Your task to perform on an android device: What's the price of the Galaxy phone? Image 0: 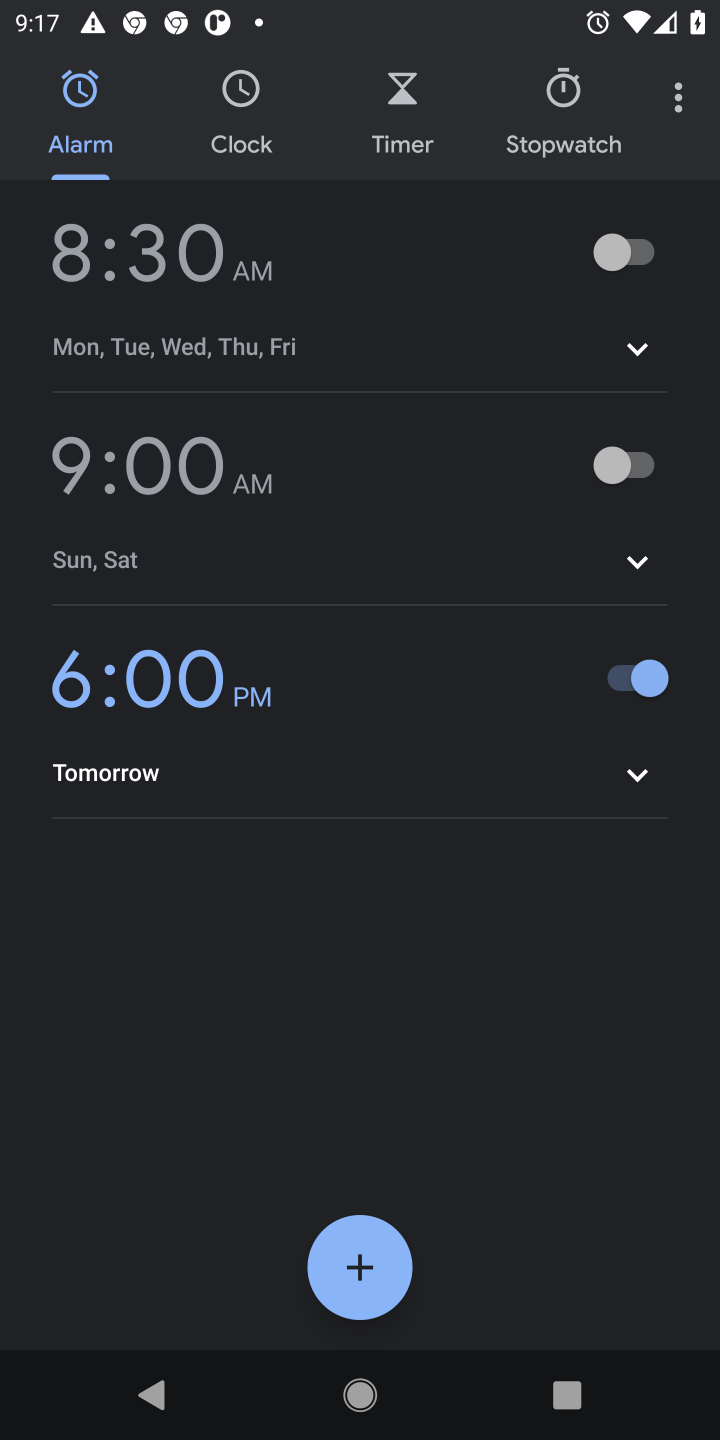
Step 0: press home button
Your task to perform on an android device: What's the price of the Galaxy phone? Image 1: 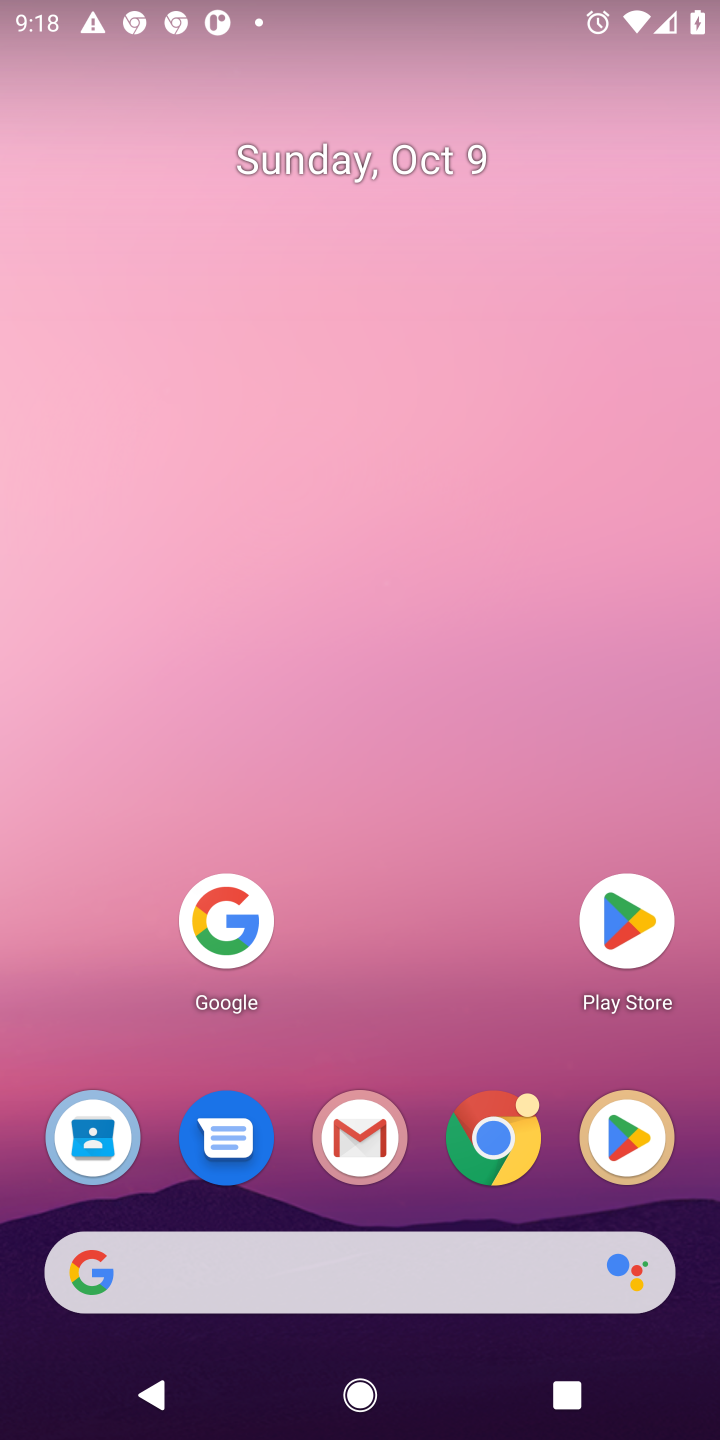
Step 1: click (219, 894)
Your task to perform on an android device: What's the price of the Galaxy phone? Image 2: 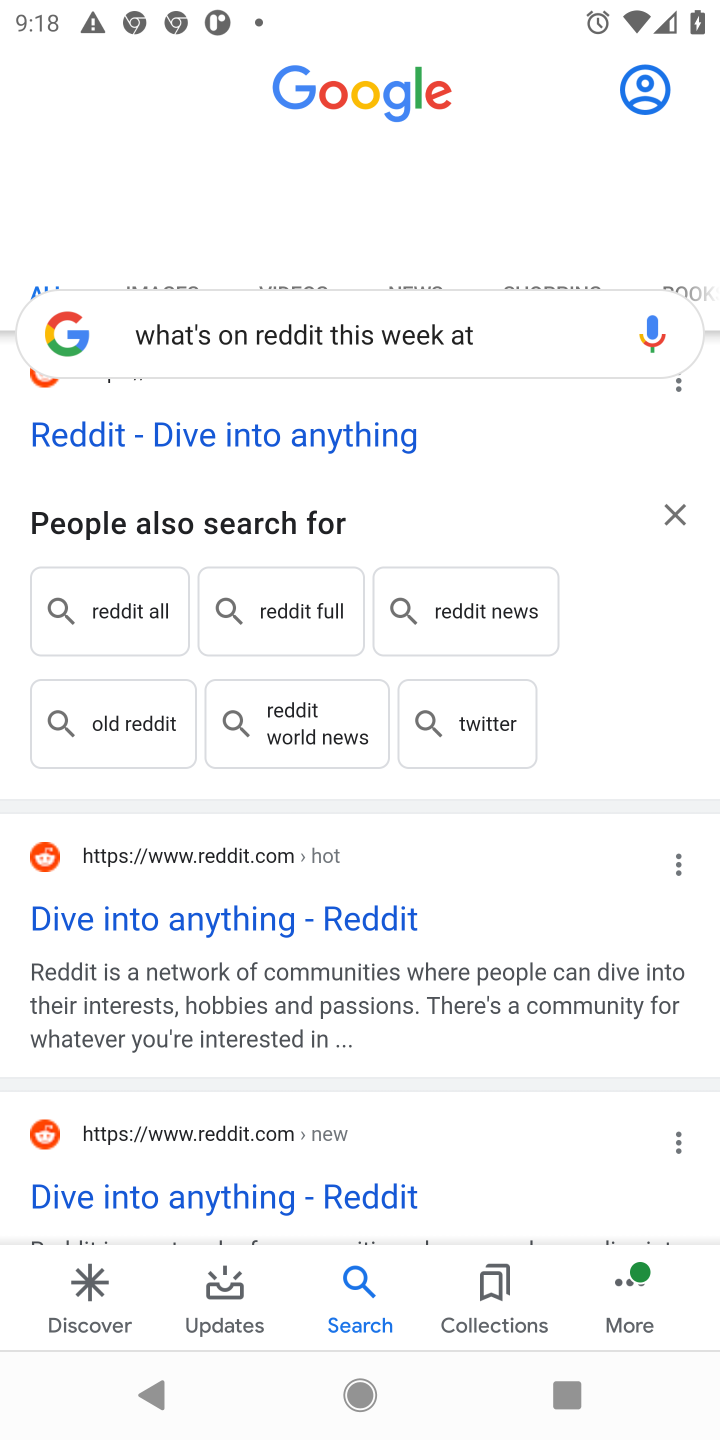
Step 2: click (495, 320)
Your task to perform on an android device: What's the price of the Galaxy phone? Image 3: 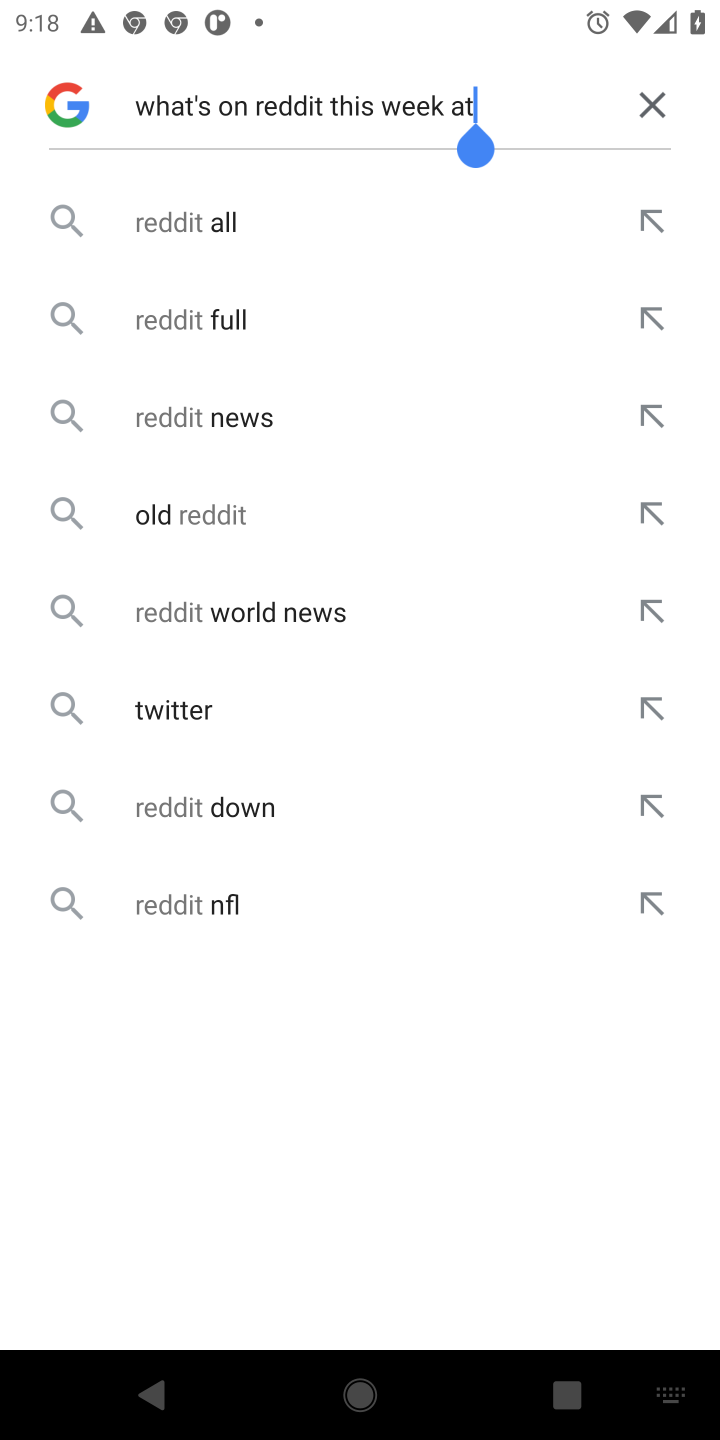
Step 3: click (647, 88)
Your task to perform on an android device: What's the price of the Galaxy phone? Image 4: 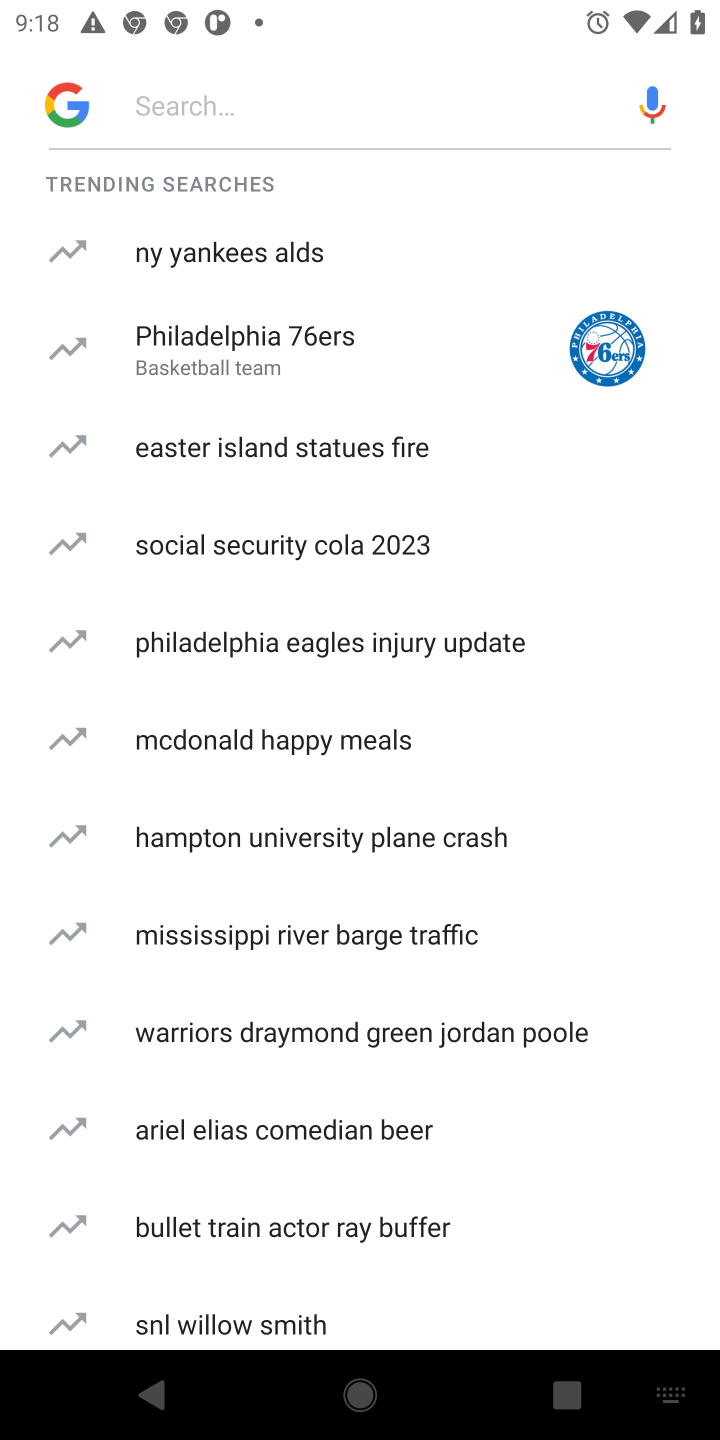
Step 4: click (285, 111)
Your task to perform on an android device: What's the price of the Galaxy phone? Image 5: 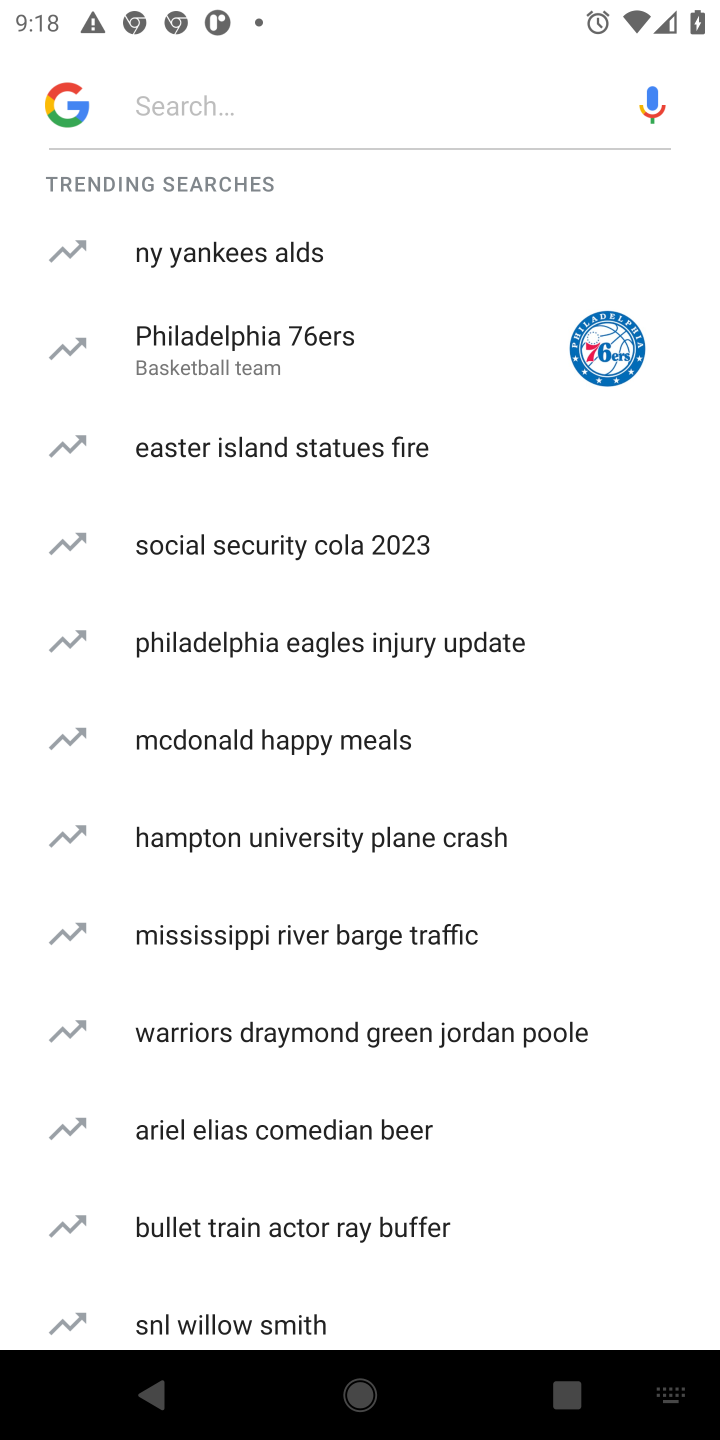
Step 5: type "What's the price of the Galaxy phone? "
Your task to perform on an android device: What's the price of the Galaxy phone? Image 6: 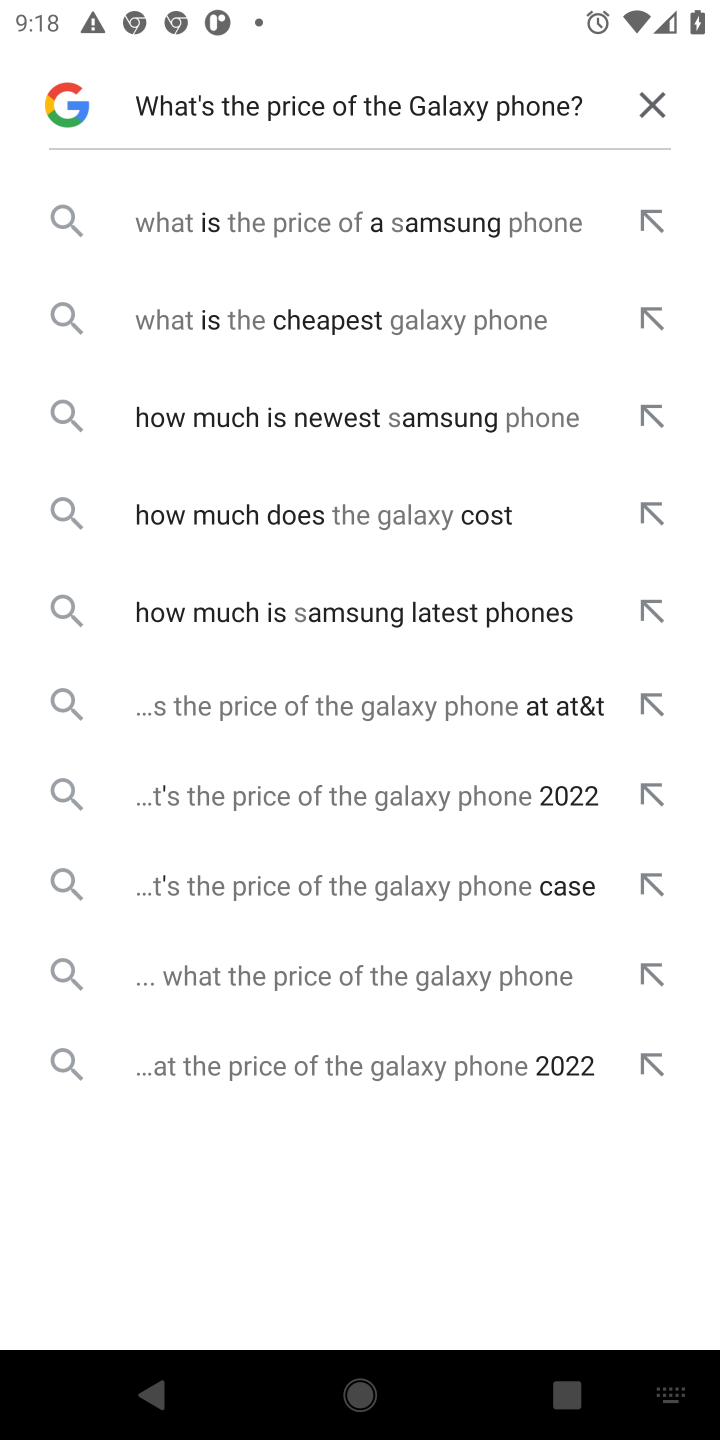
Step 6: click (323, 536)
Your task to perform on an android device: What's the price of the Galaxy phone? Image 7: 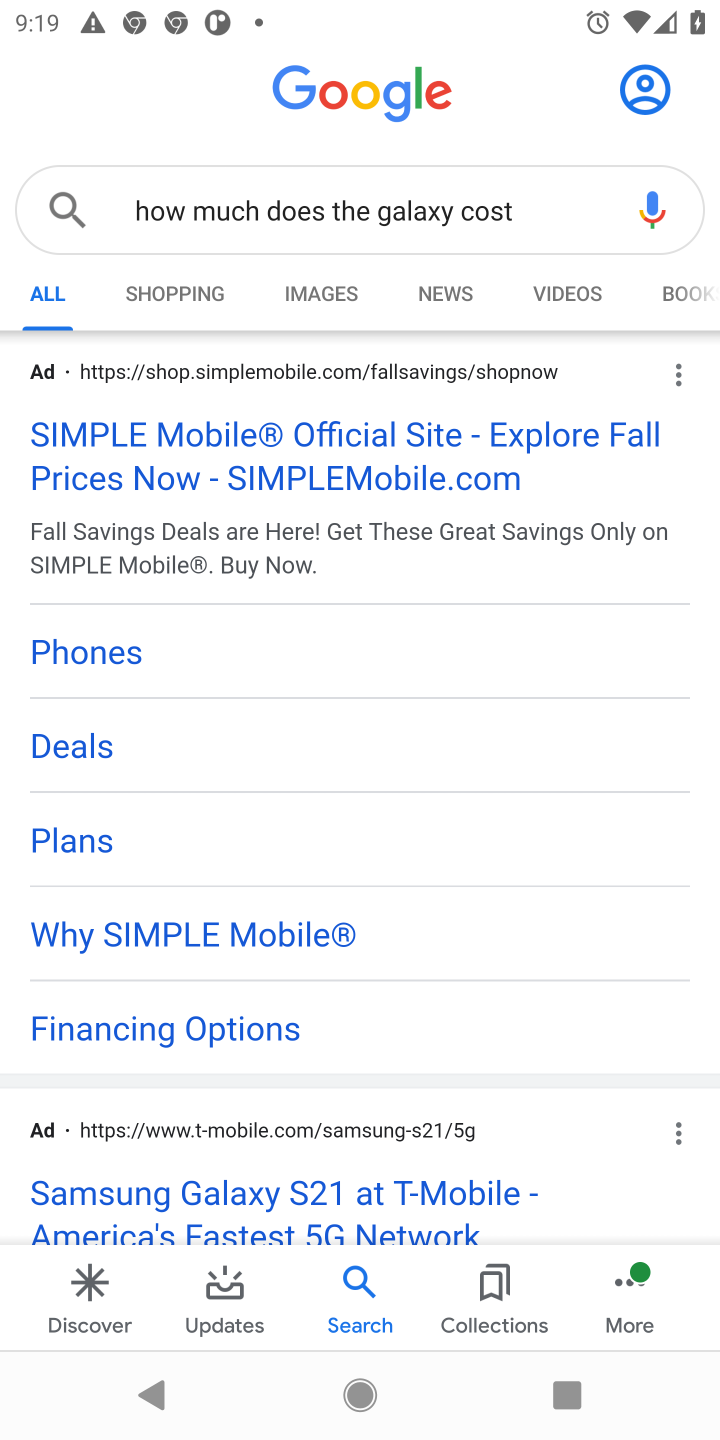
Step 7: click (180, 656)
Your task to perform on an android device: What's the price of the Galaxy phone? Image 8: 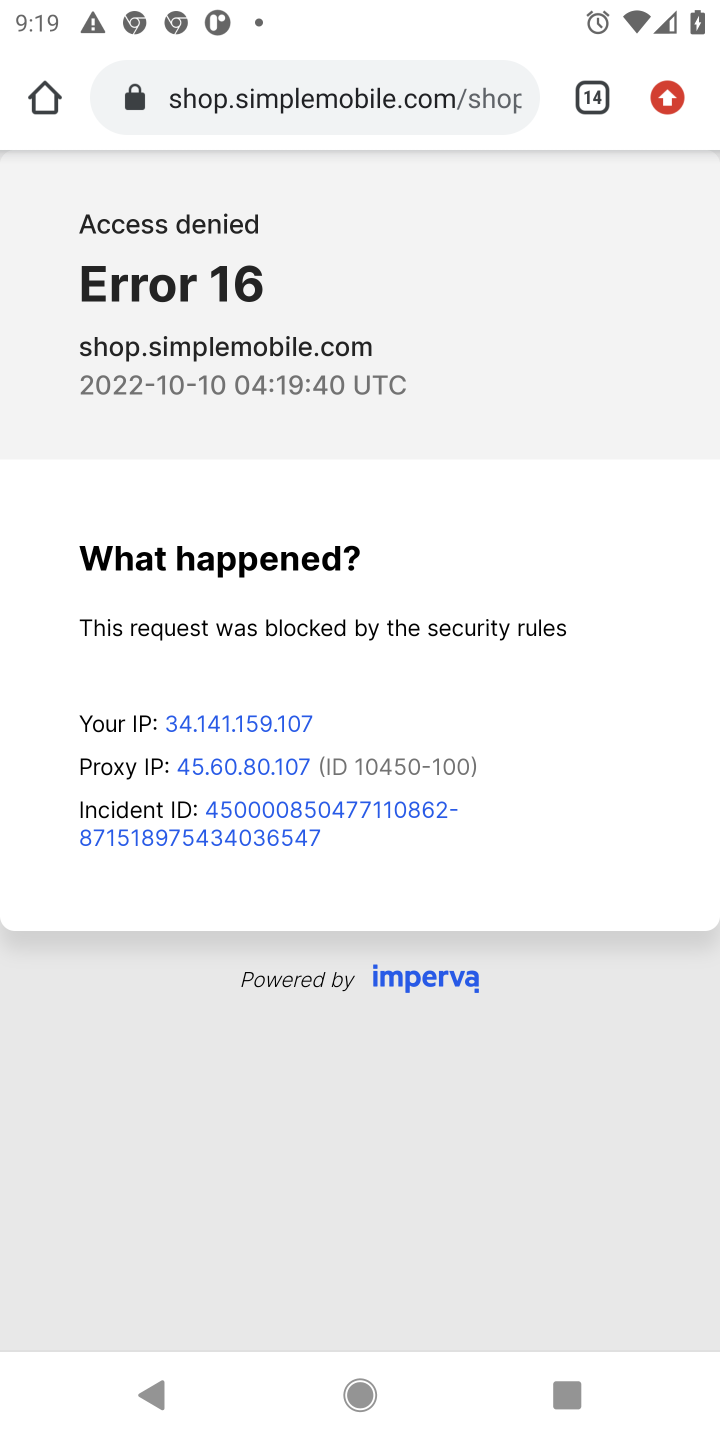
Step 8: press back button
Your task to perform on an android device: What's the price of the Galaxy phone? Image 9: 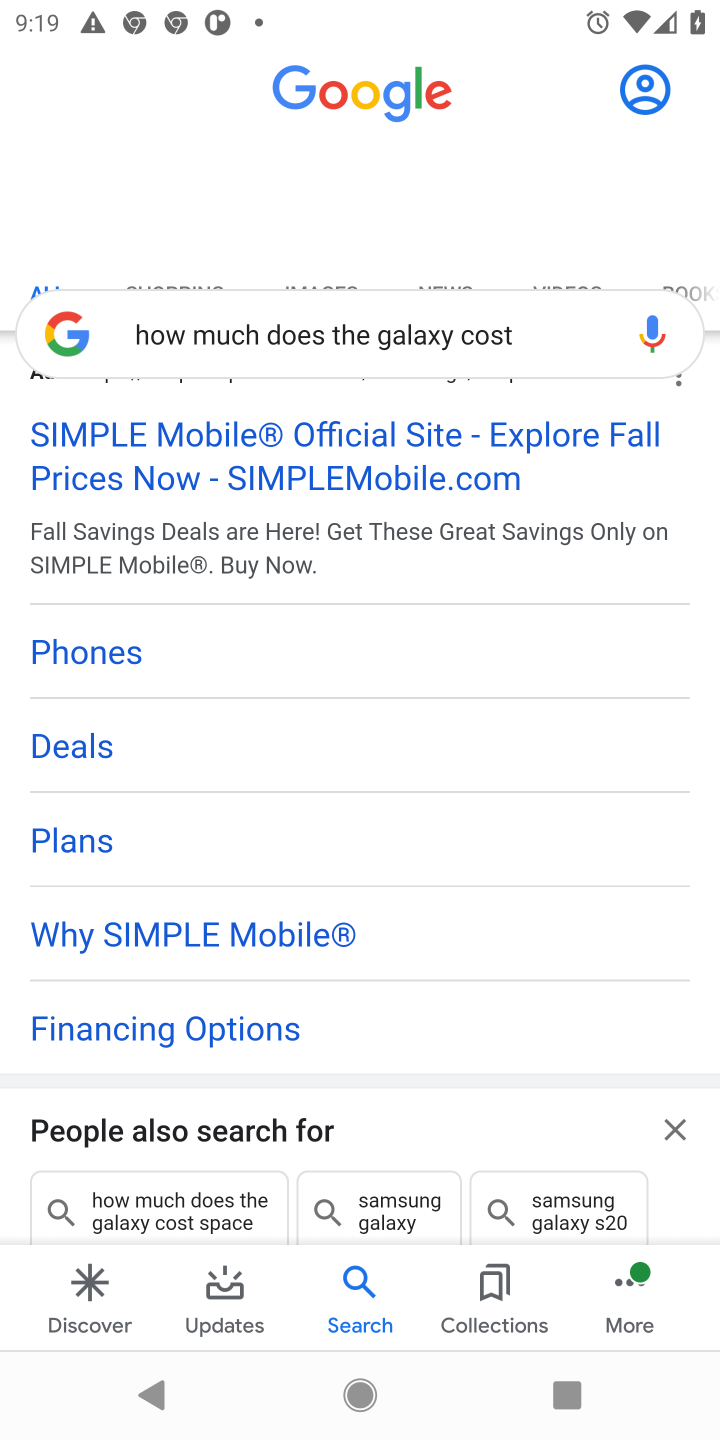
Step 9: click (296, 1124)
Your task to perform on an android device: What's the price of the Galaxy phone? Image 10: 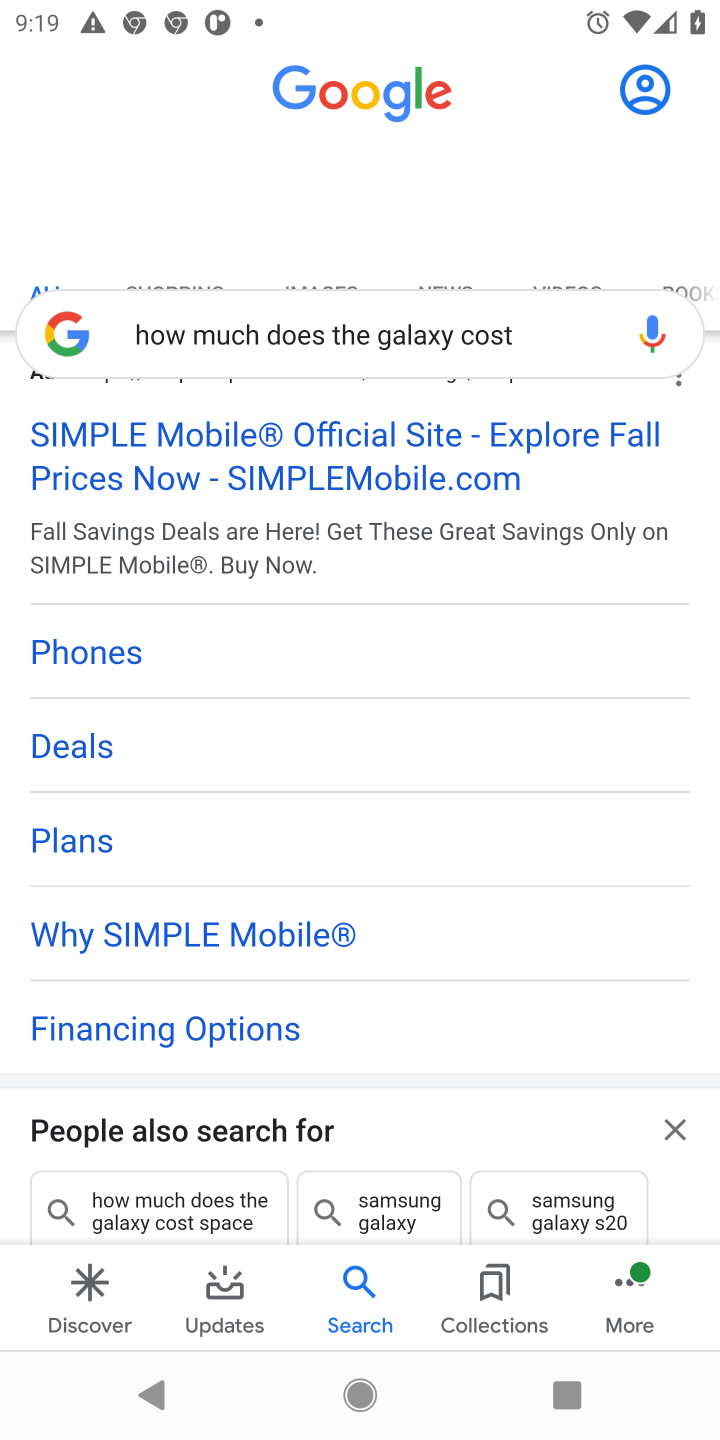
Step 10: click (174, 442)
Your task to perform on an android device: What's the price of the Galaxy phone? Image 11: 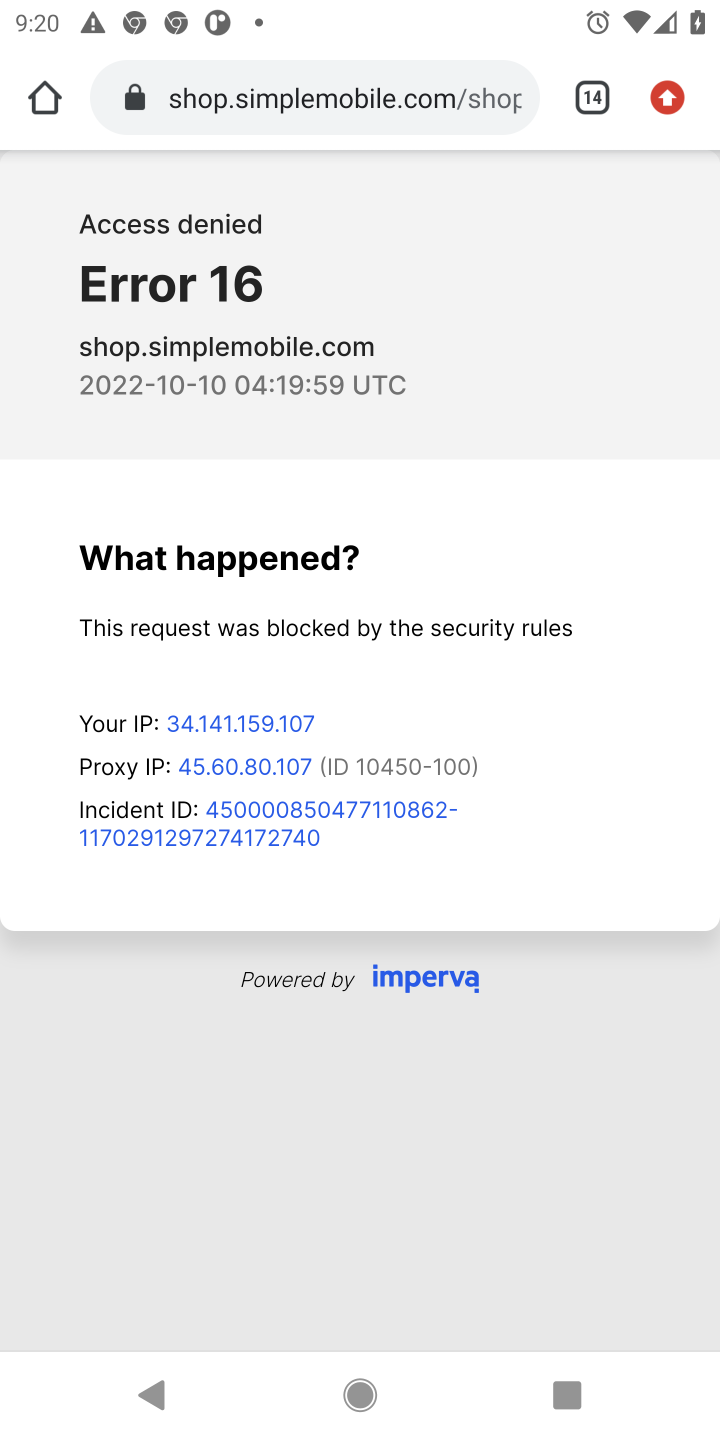
Step 11: press back button
Your task to perform on an android device: What's the price of the Galaxy phone? Image 12: 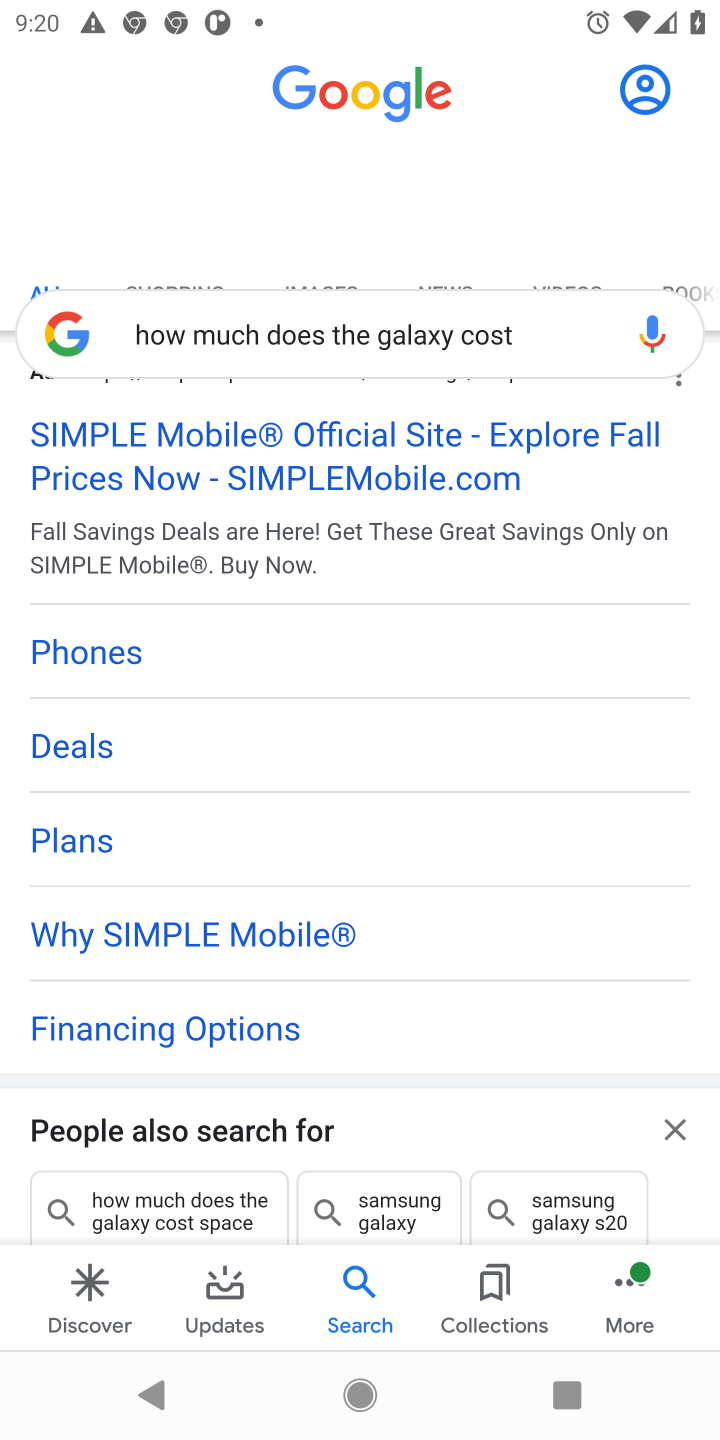
Step 12: drag from (190, 1118) to (262, 423)
Your task to perform on an android device: What's the price of the Galaxy phone? Image 13: 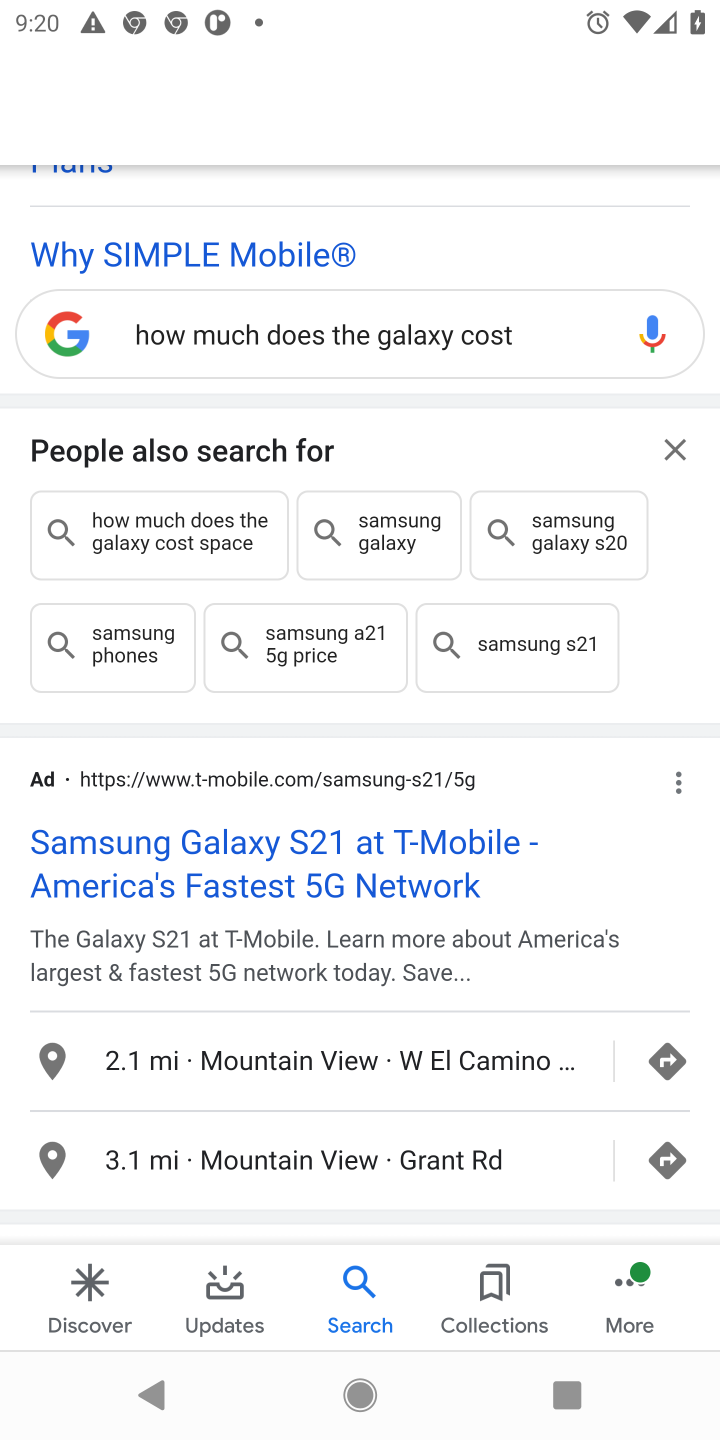
Step 13: click (235, 878)
Your task to perform on an android device: What's the price of the Galaxy phone? Image 14: 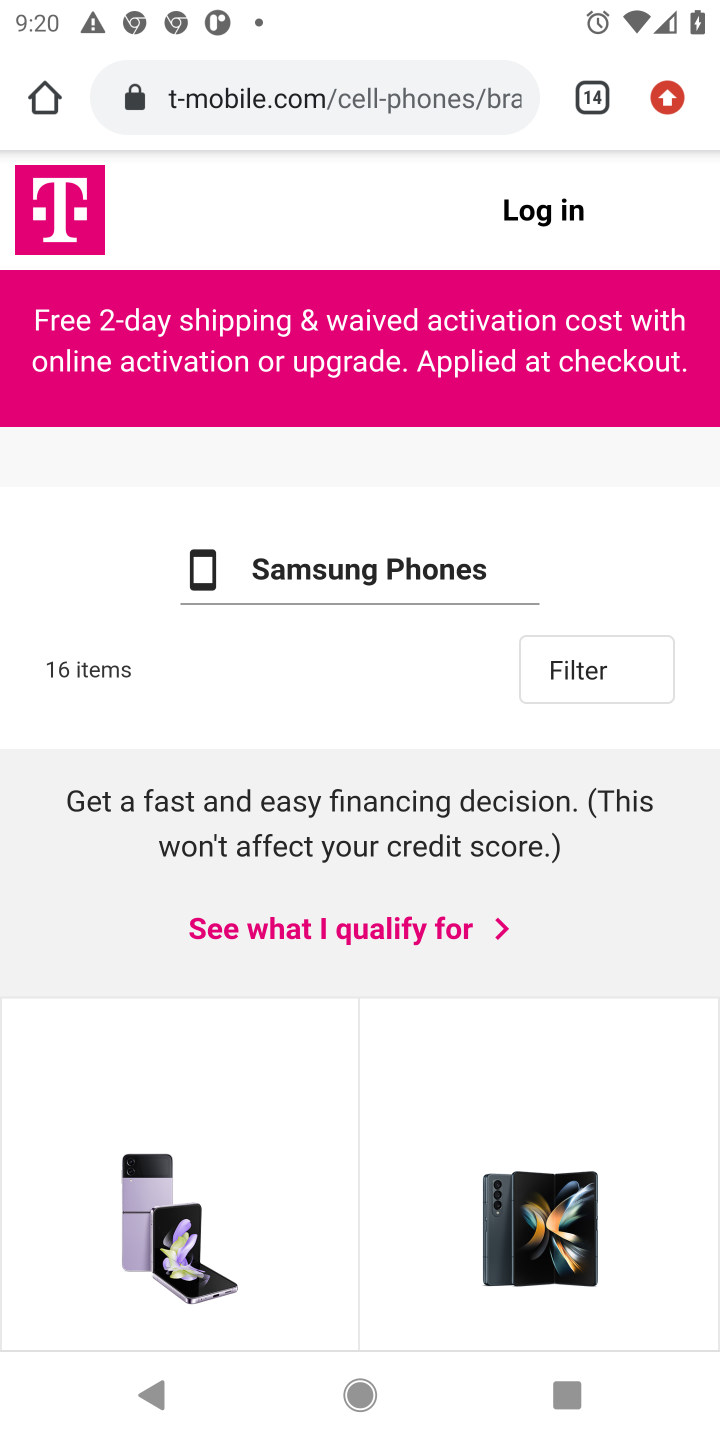
Step 14: task complete